Your task to perform on an android device: toggle sleep mode Image 0: 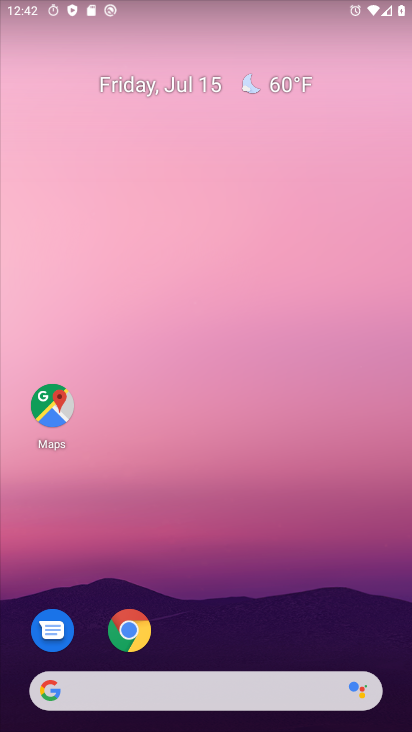
Step 0: drag from (177, 605) to (411, 196)
Your task to perform on an android device: toggle sleep mode Image 1: 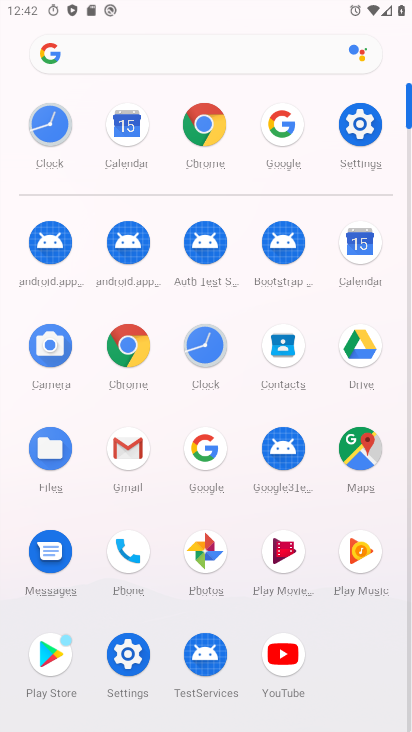
Step 1: click (357, 129)
Your task to perform on an android device: toggle sleep mode Image 2: 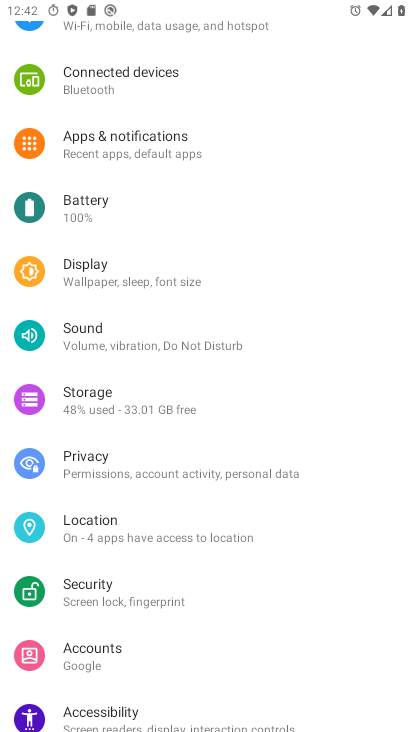
Step 2: task complete